Your task to perform on an android device: turn on data saver in the chrome app Image 0: 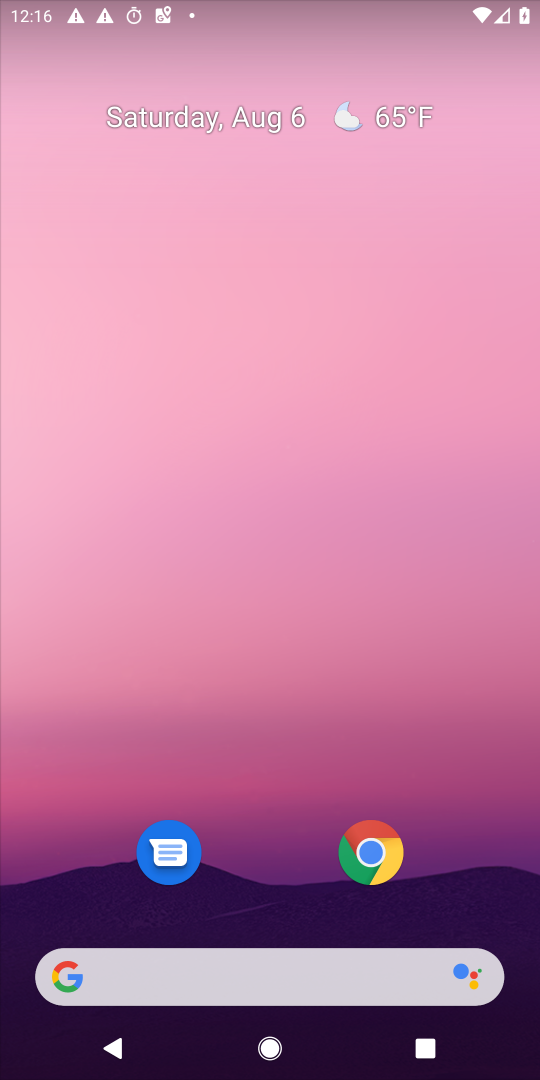
Step 0: drag from (347, 974) to (340, 461)
Your task to perform on an android device: turn on data saver in the chrome app Image 1: 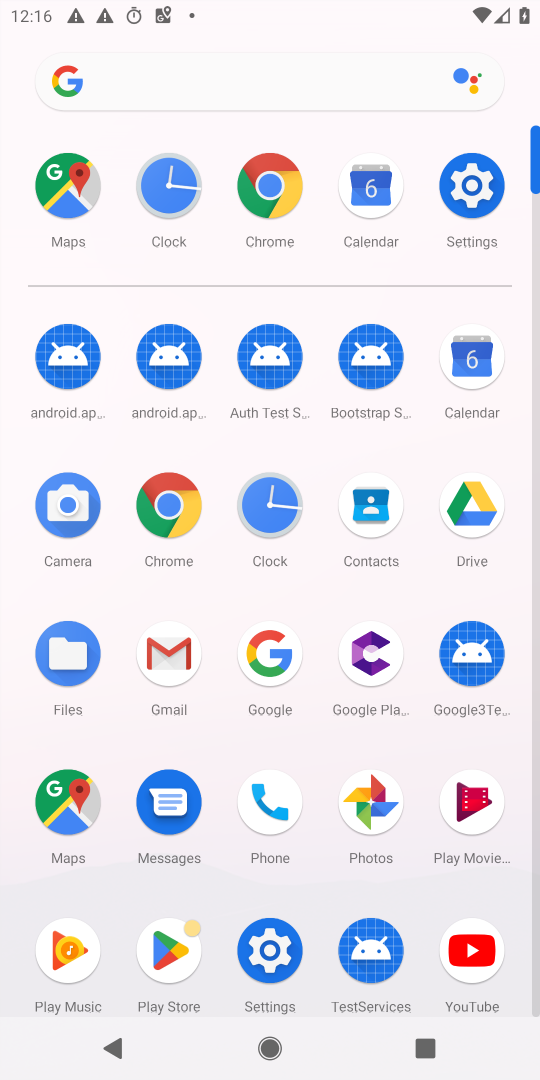
Step 1: click (267, 176)
Your task to perform on an android device: turn on data saver in the chrome app Image 2: 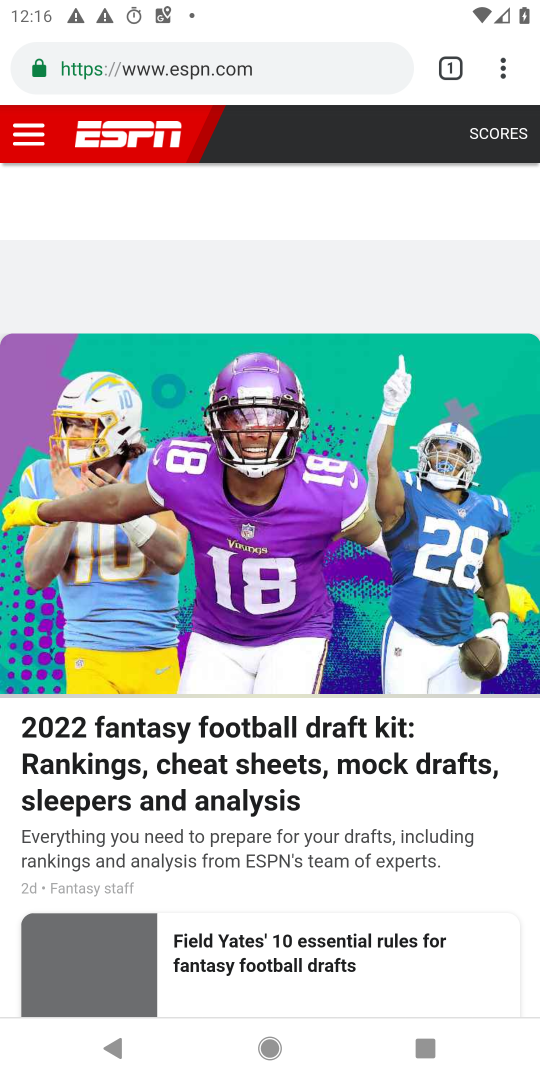
Step 2: click (498, 54)
Your task to perform on an android device: turn on data saver in the chrome app Image 3: 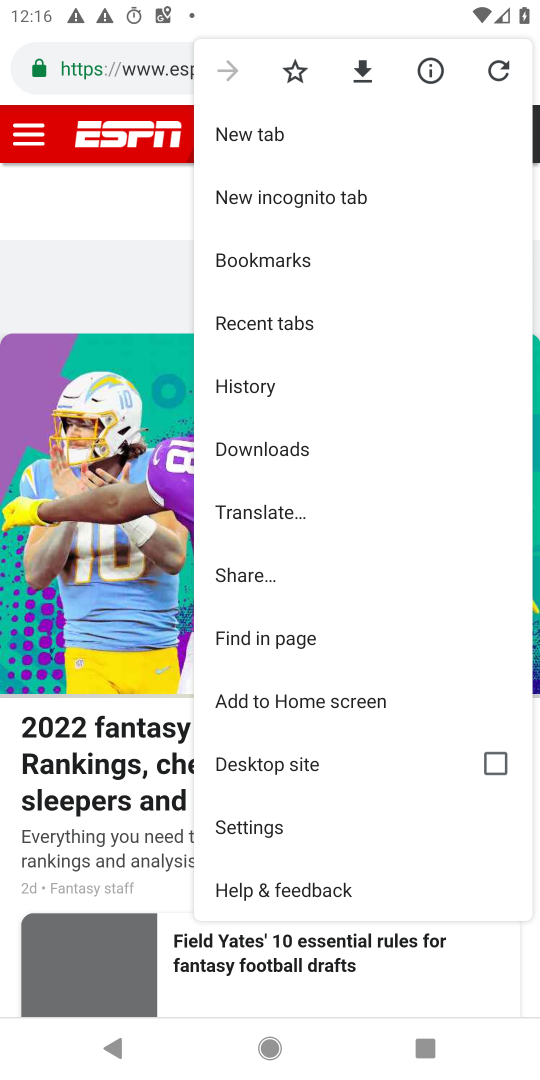
Step 3: click (250, 823)
Your task to perform on an android device: turn on data saver in the chrome app Image 4: 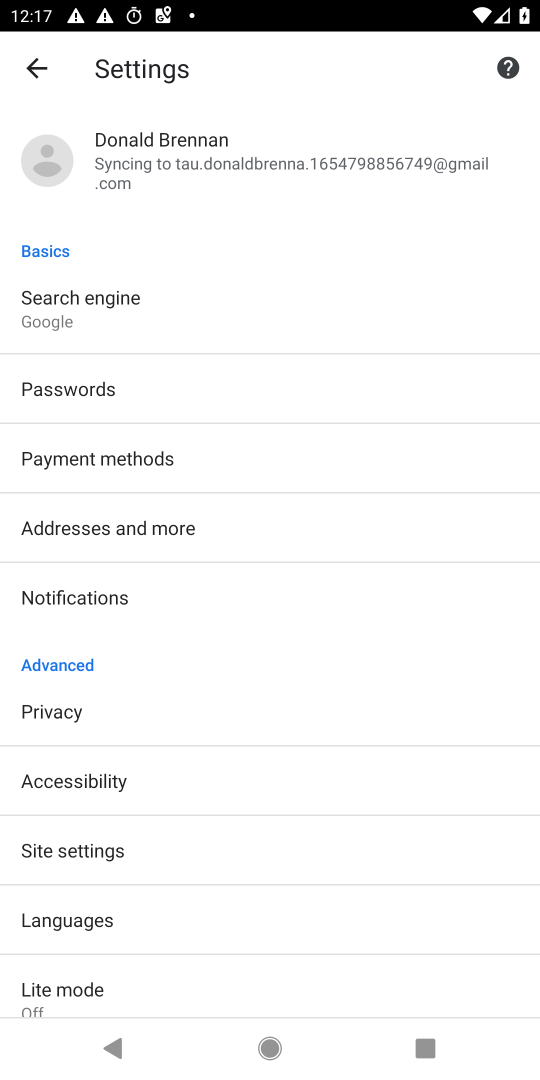
Step 4: click (103, 986)
Your task to perform on an android device: turn on data saver in the chrome app Image 5: 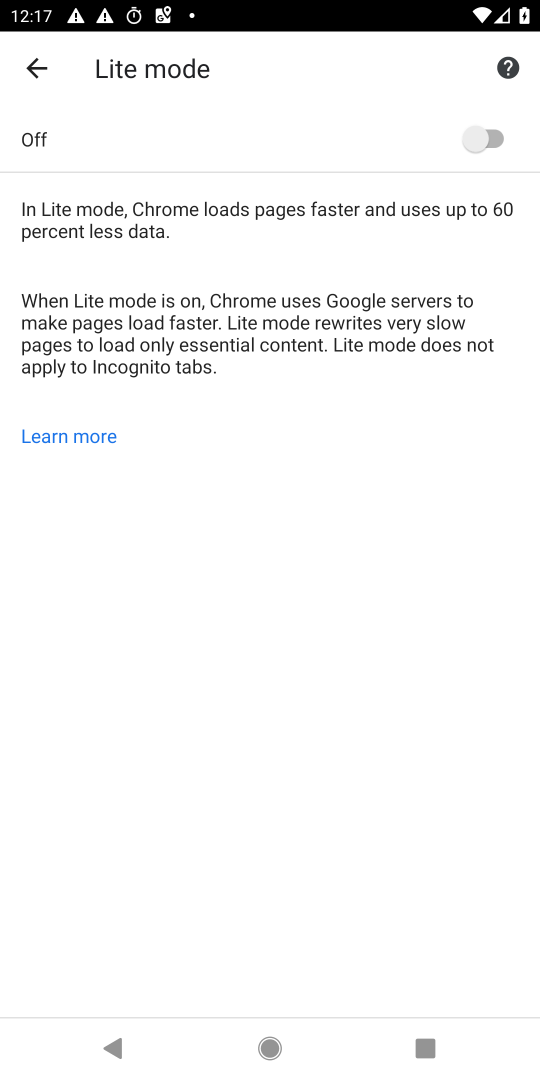
Step 5: click (495, 133)
Your task to perform on an android device: turn on data saver in the chrome app Image 6: 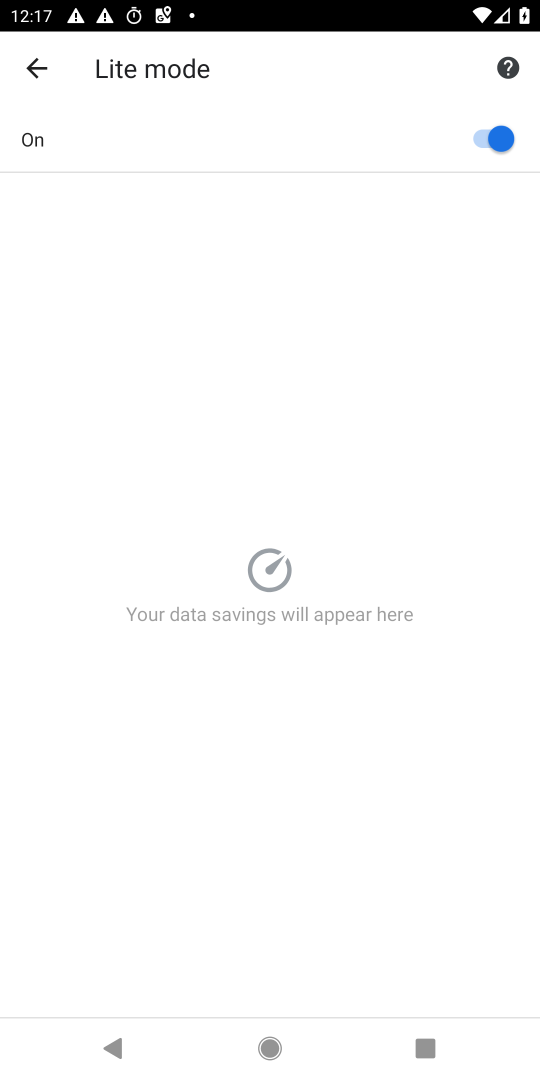
Step 6: task complete